Your task to perform on an android device: What's the weather going to be this weekend? Image 0: 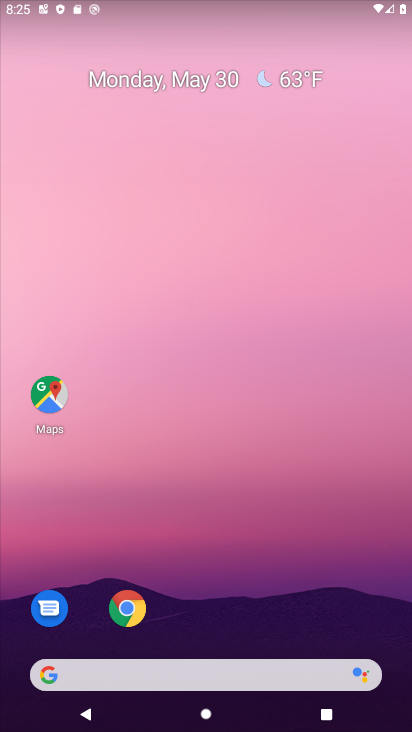
Step 0: drag from (394, 713) to (268, 160)
Your task to perform on an android device: What's the weather going to be this weekend? Image 1: 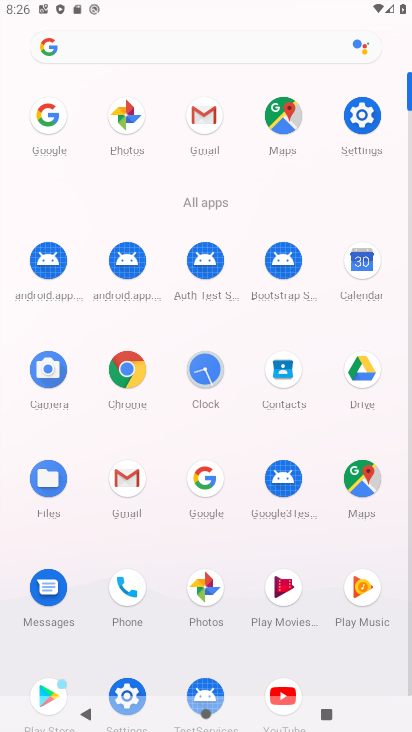
Step 1: click (210, 481)
Your task to perform on an android device: What's the weather going to be this weekend? Image 2: 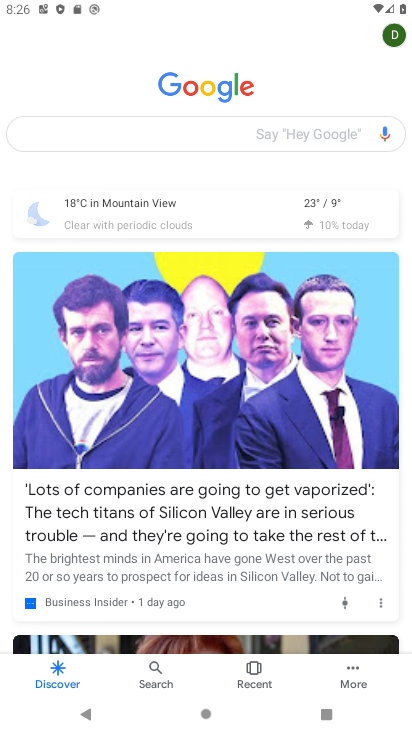
Step 2: click (322, 202)
Your task to perform on an android device: What's the weather going to be this weekend? Image 3: 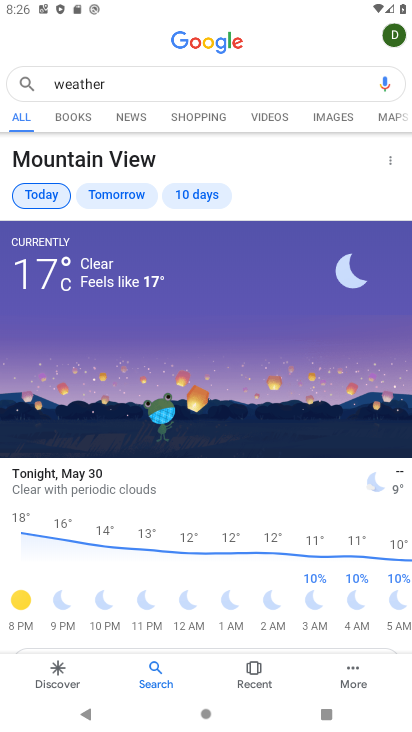
Step 3: click (185, 191)
Your task to perform on an android device: What's the weather going to be this weekend? Image 4: 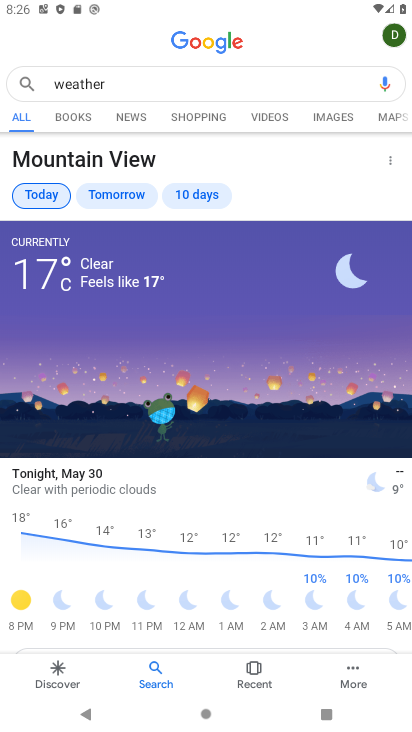
Step 4: click (192, 193)
Your task to perform on an android device: What's the weather going to be this weekend? Image 5: 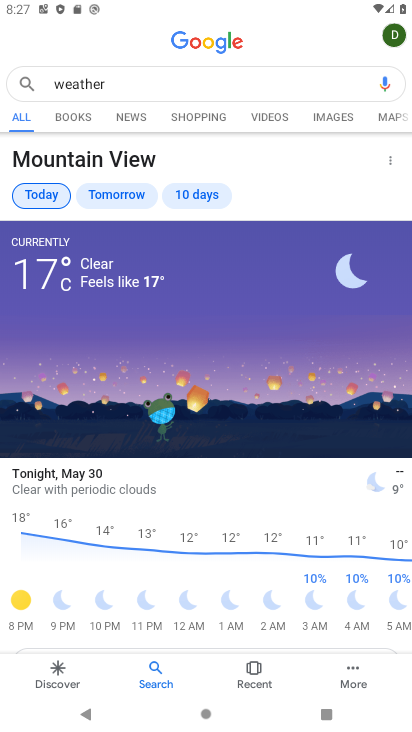
Step 5: drag from (165, 560) to (173, 304)
Your task to perform on an android device: What's the weather going to be this weekend? Image 6: 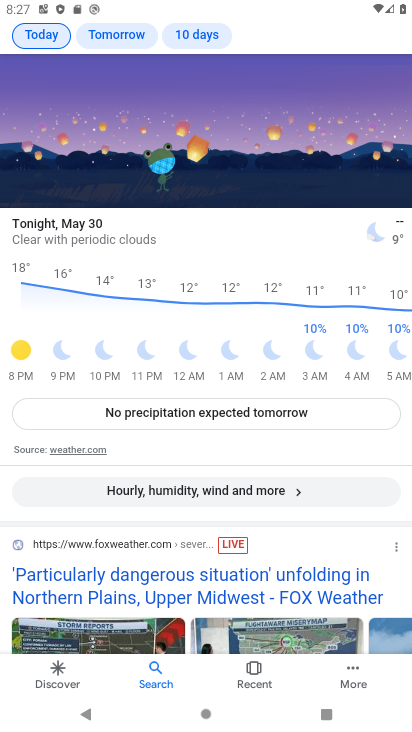
Step 6: drag from (222, 228) to (222, 440)
Your task to perform on an android device: What's the weather going to be this weekend? Image 7: 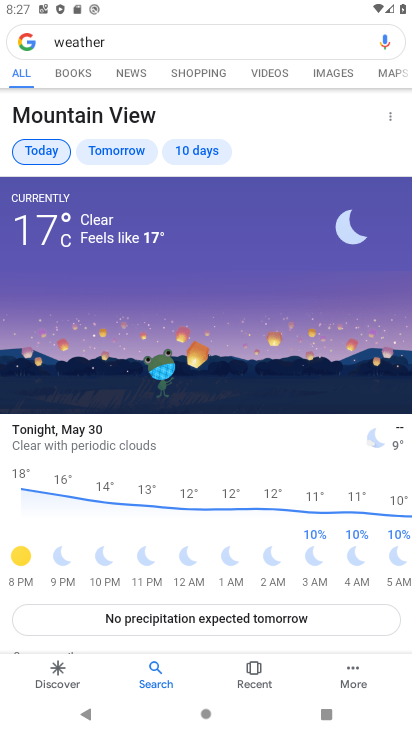
Step 7: click (195, 147)
Your task to perform on an android device: What's the weather going to be this weekend? Image 8: 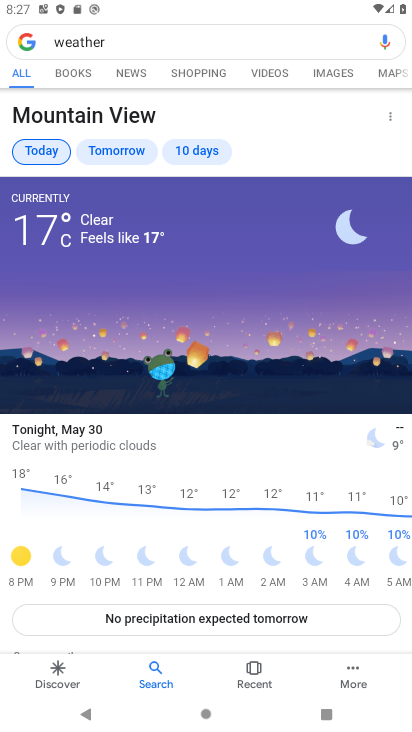
Step 8: task complete